Your task to perform on an android device: turn on bluetooth scan Image 0: 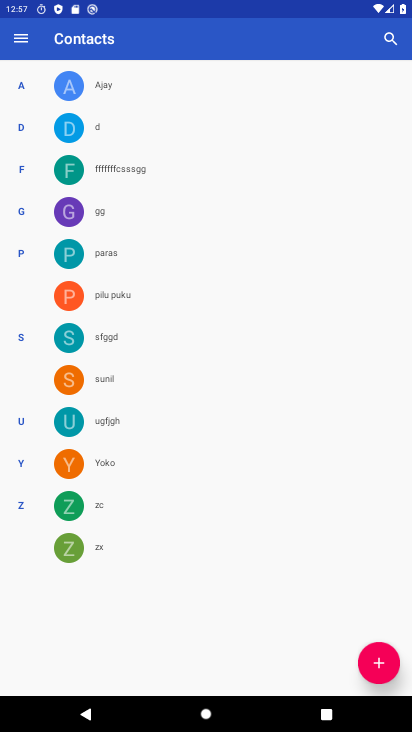
Step 0: press home button
Your task to perform on an android device: turn on bluetooth scan Image 1: 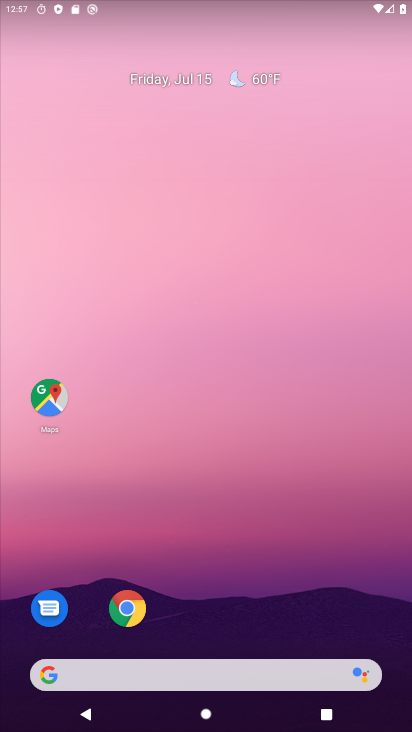
Step 1: drag from (182, 583) to (224, 10)
Your task to perform on an android device: turn on bluetooth scan Image 2: 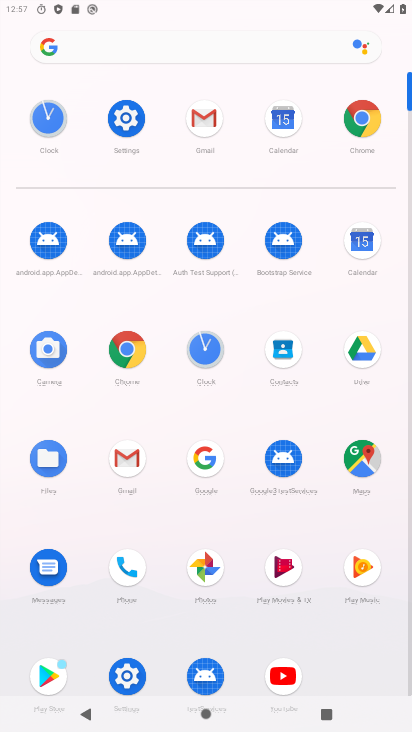
Step 2: click (120, 121)
Your task to perform on an android device: turn on bluetooth scan Image 3: 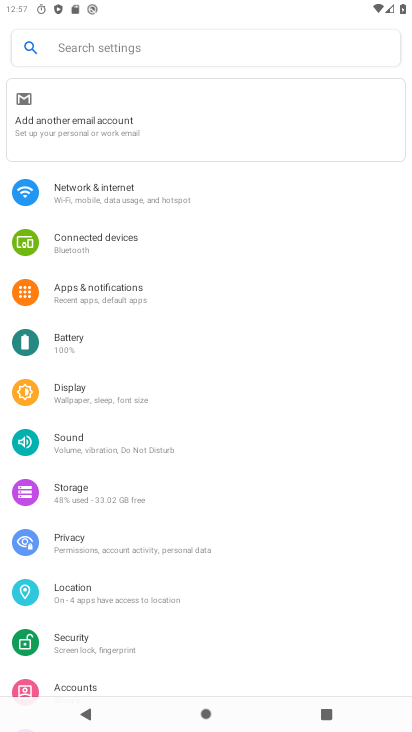
Step 3: click (66, 600)
Your task to perform on an android device: turn on bluetooth scan Image 4: 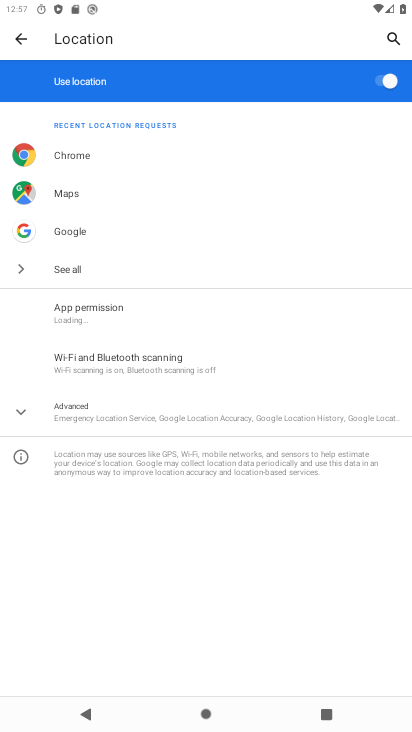
Step 4: click (98, 379)
Your task to perform on an android device: turn on bluetooth scan Image 5: 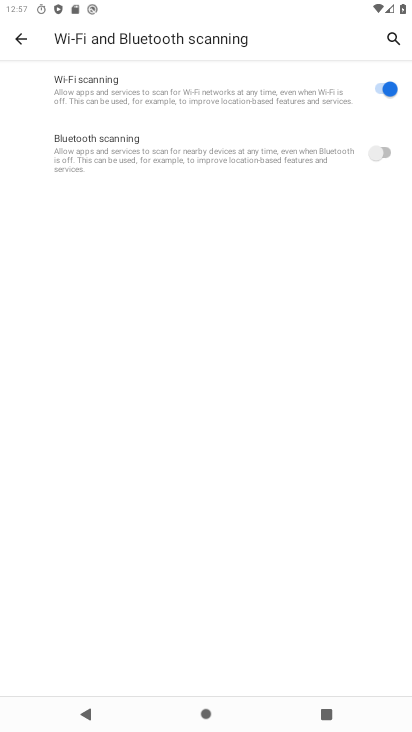
Step 5: click (166, 141)
Your task to perform on an android device: turn on bluetooth scan Image 6: 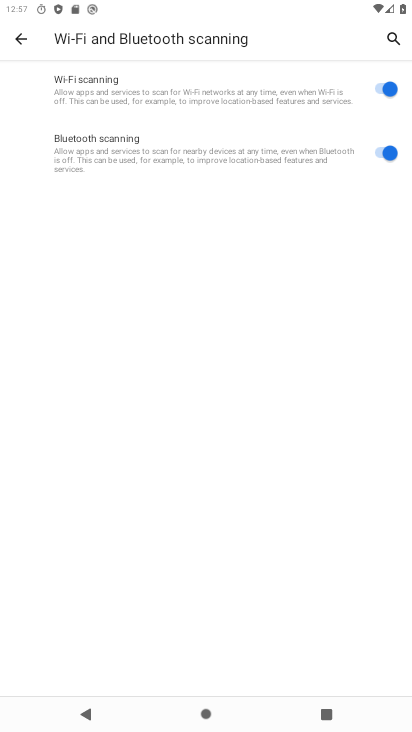
Step 6: task complete